Your task to perform on an android device: View the shopping cart on walmart. Add apple airpods pro to the cart on walmart, then select checkout. Image 0: 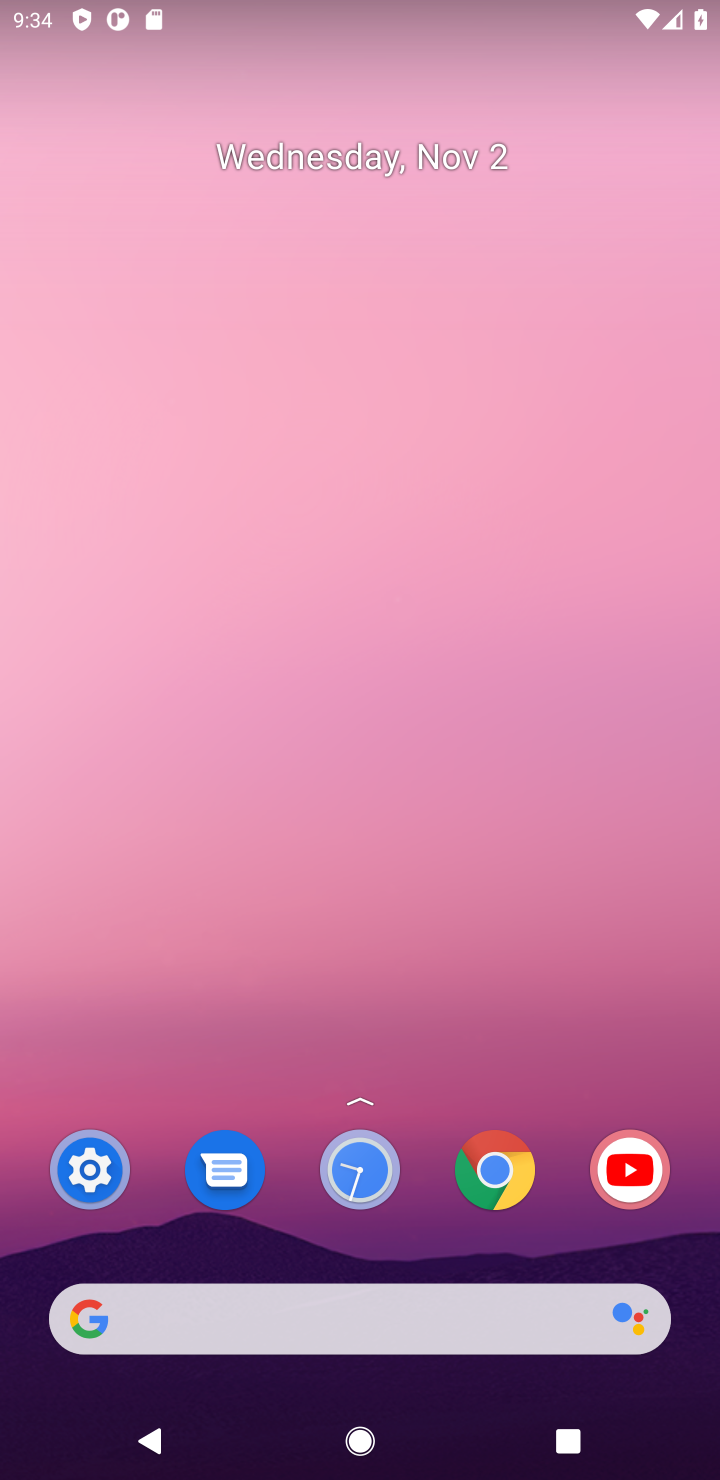
Step 0: drag from (461, 806) to (383, 8)
Your task to perform on an android device: View the shopping cart on walmart. Add apple airpods pro to the cart on walmart, then select checkout. Image 1: 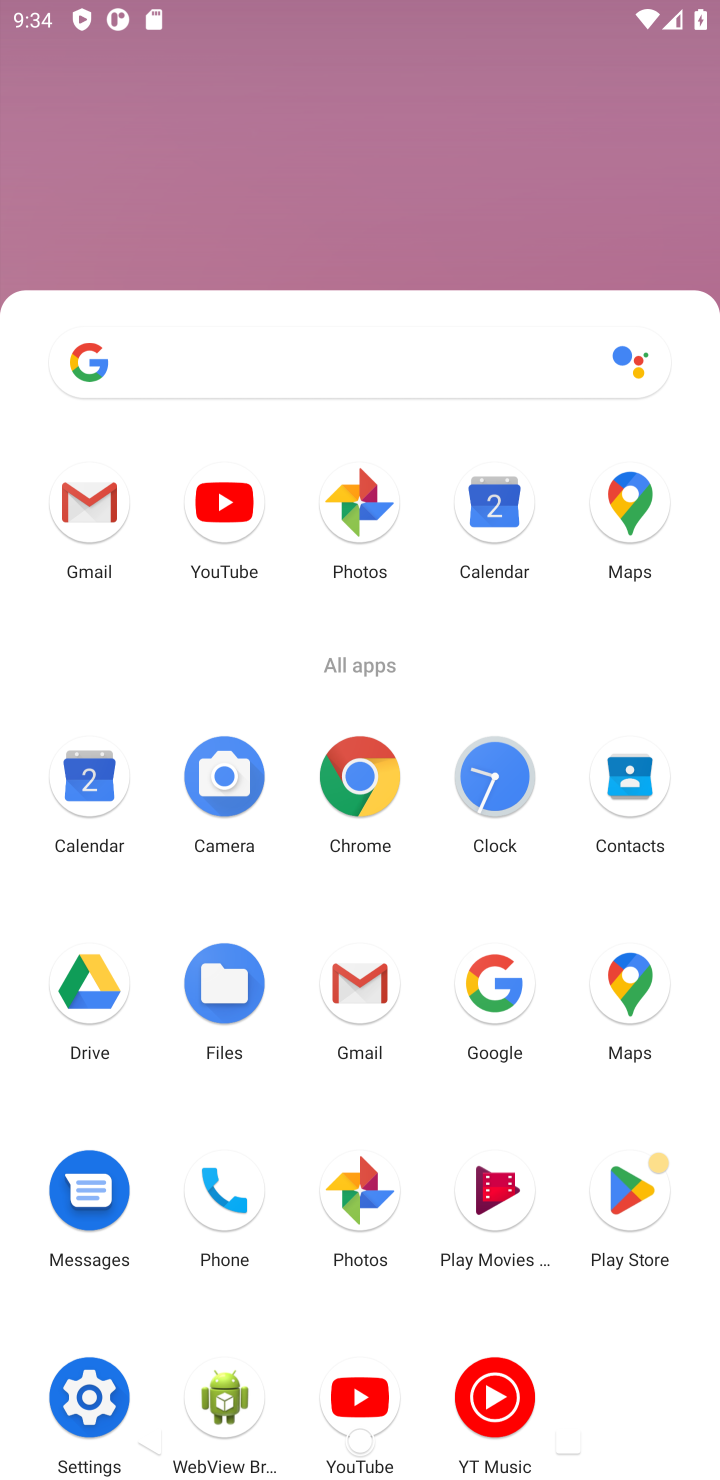
Step 1: drag from (468, 1036) to (435, 280)
Your task to perform on an android device: View the shopping cart on walmart. Add apple airpods pro to the cart on walmart, then select checkout. Image 2: 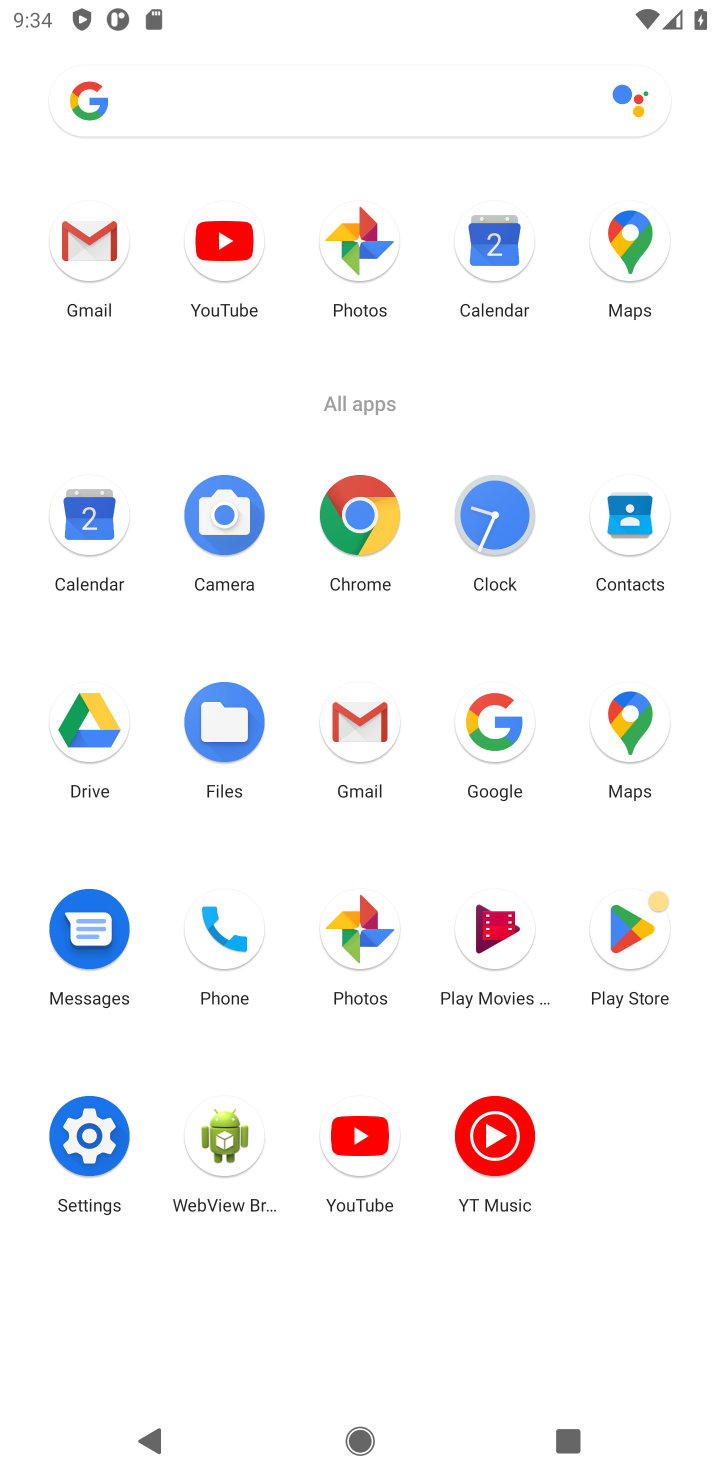
Step 2: click (515, 750)
Your task to perform on an android device: View the shopping cart on walmart. Add apple airpods pro to the cart on walmart, then select checkout. Image 3: 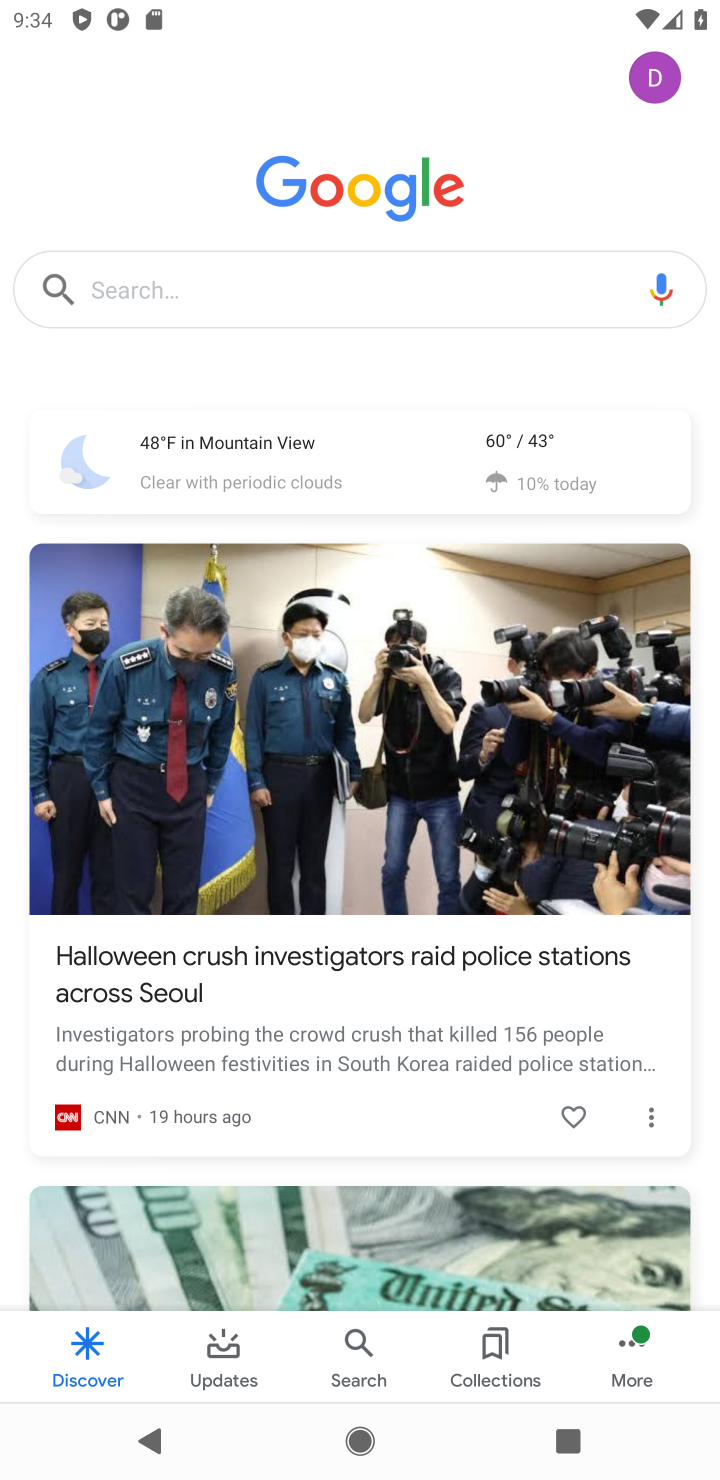
Step 3: click (416, 294)
Your task to perform on an android device: View the shopping cart on walmart. Add apple airpods pro to the cart on walmart, then select checkout. Image 4: 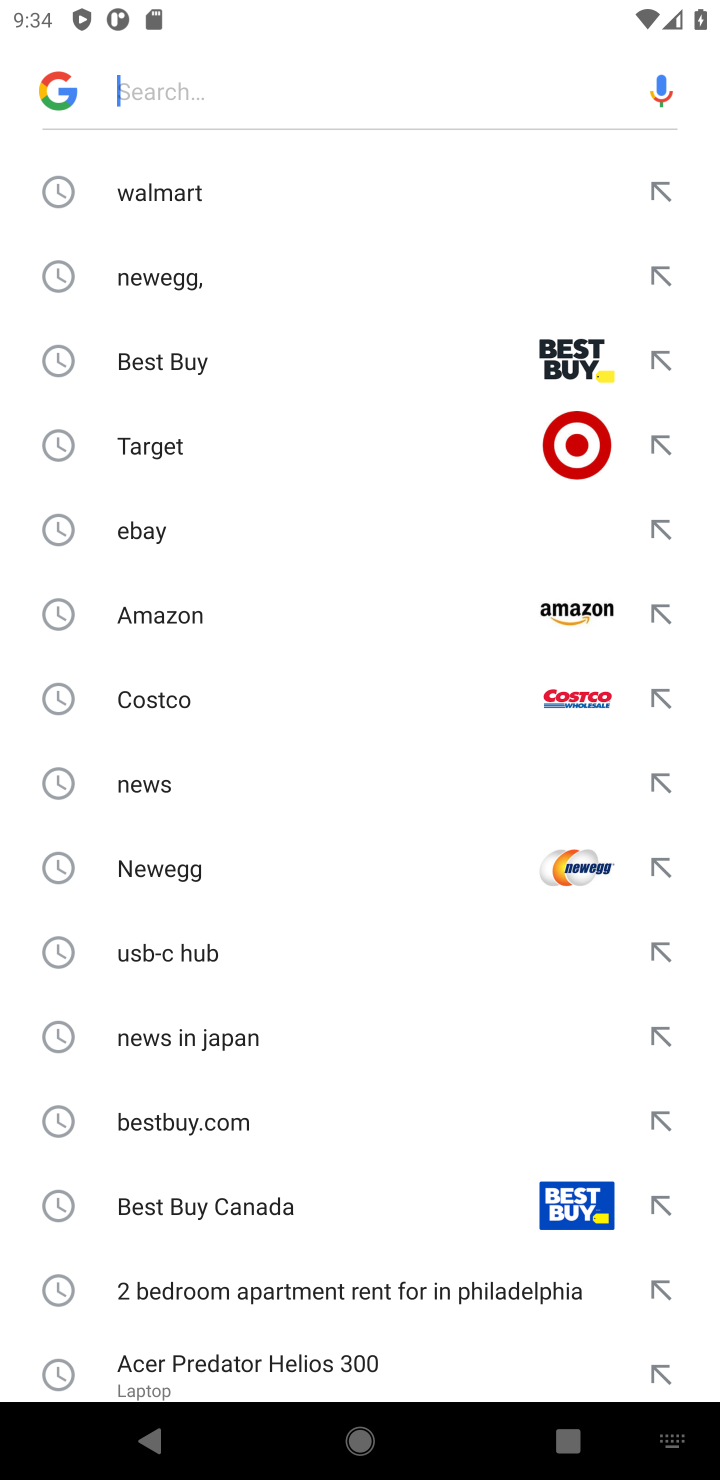
Step 4: type "walmart"
Your task to perform on an android device: View the shopping cart on walmart. Add apple airpods pro to the cart on walmart, then select checkout. Image 5: 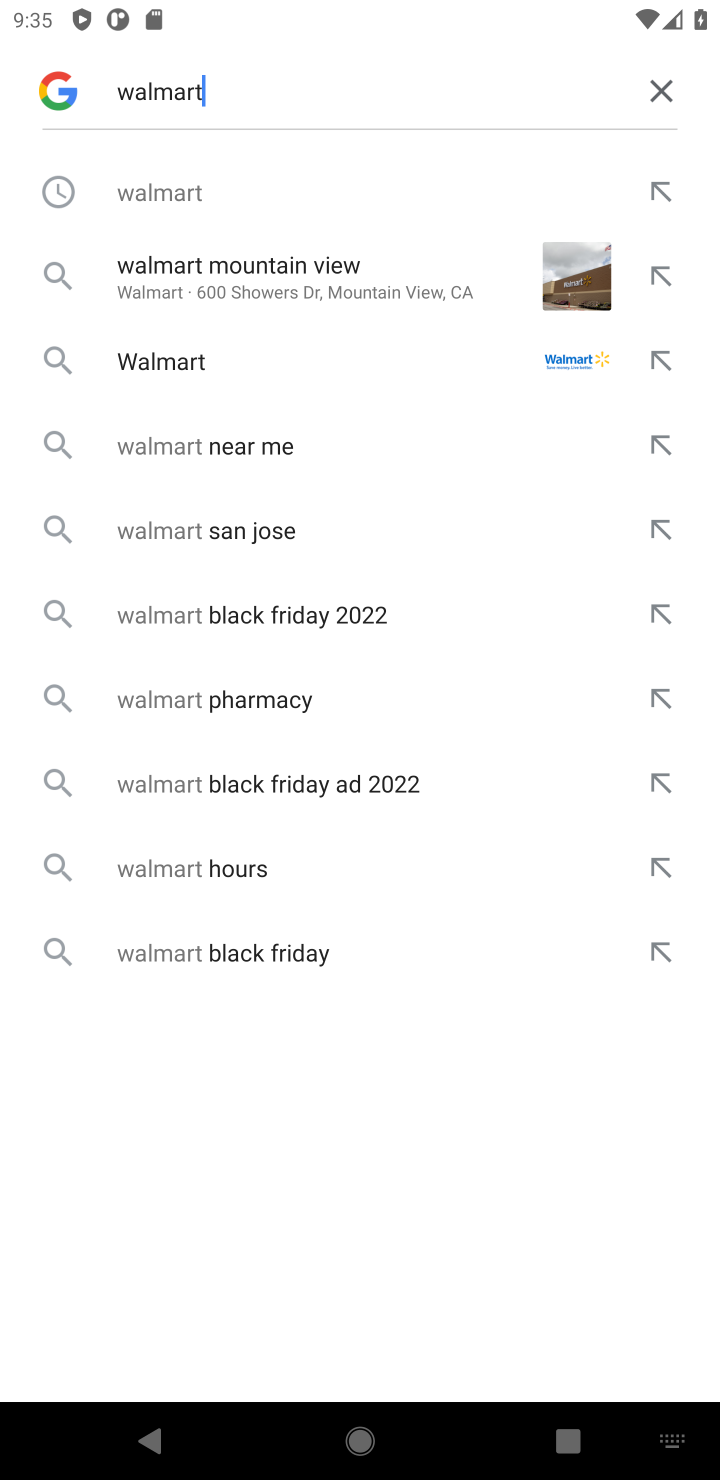
Step 5: click (351, 172)
Your task to perform on an android device: View the shopping cart on walmart. Add apple airpods pro to the cart on walmart, then select checkout. Image 6: 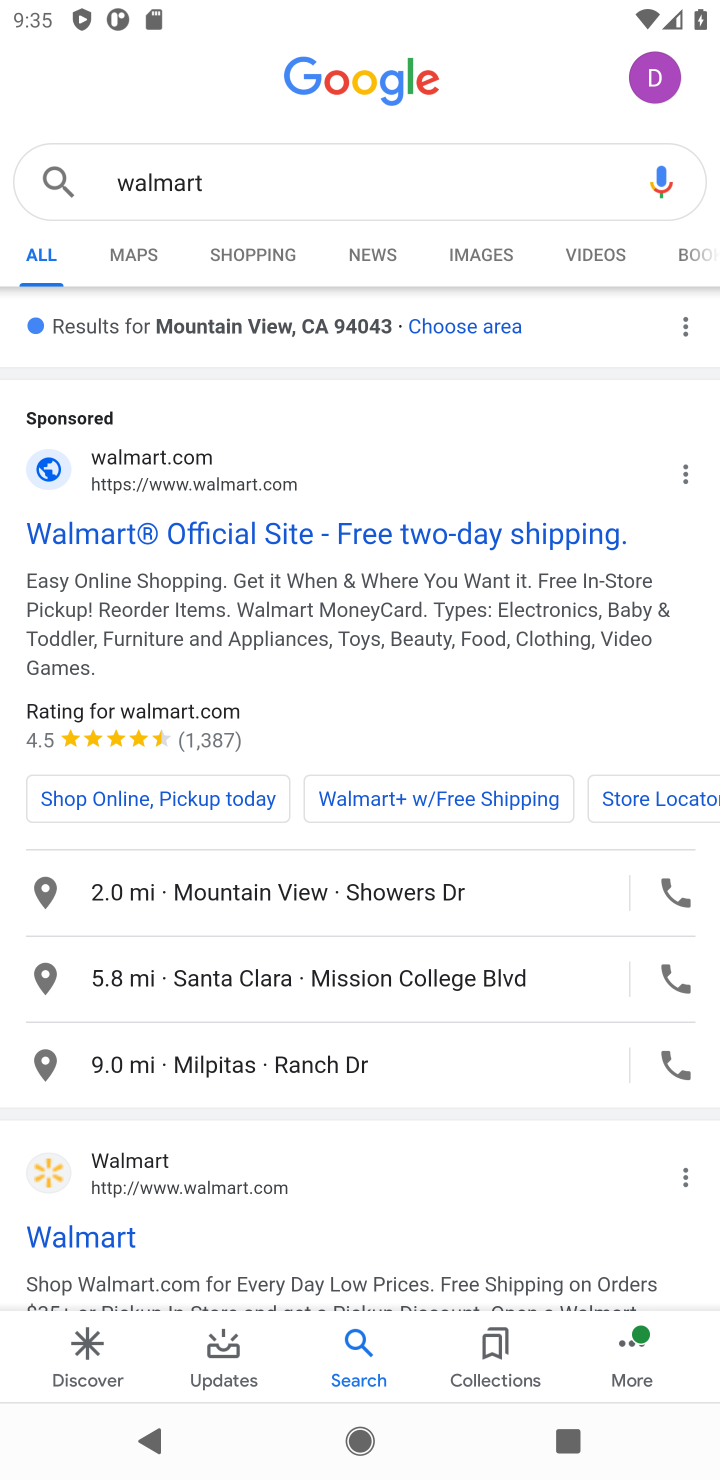
Step 6: click (144, 540)
Your task to perform on an android device: View the shopping cart on walmart. Add apple airpods pro to the cart on walmart, then select checkout. Image 7: 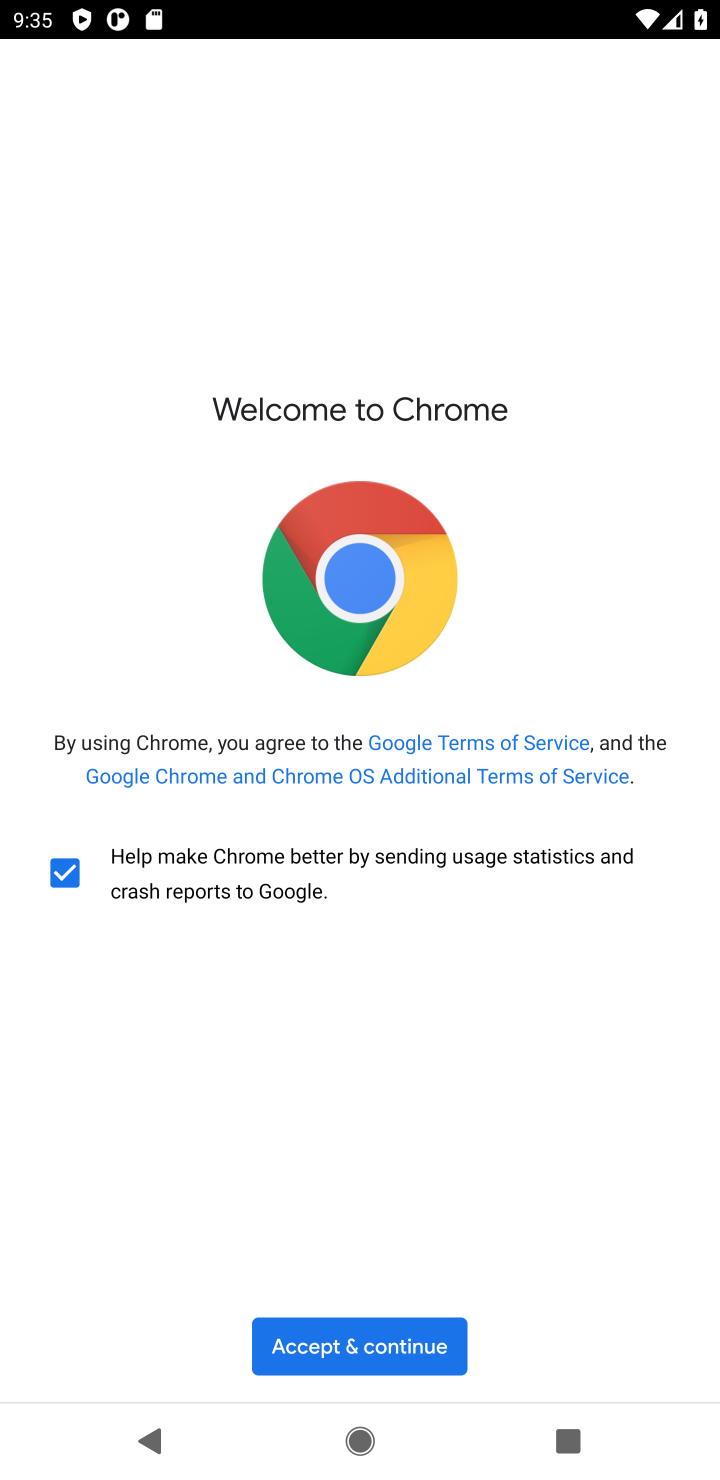
Step 7: click (420, 1350)
Your task to perform on an android device: View the shopping cart on walmart. Add apple airpods pro to the cart on walmart, then select checkout. Image 8: 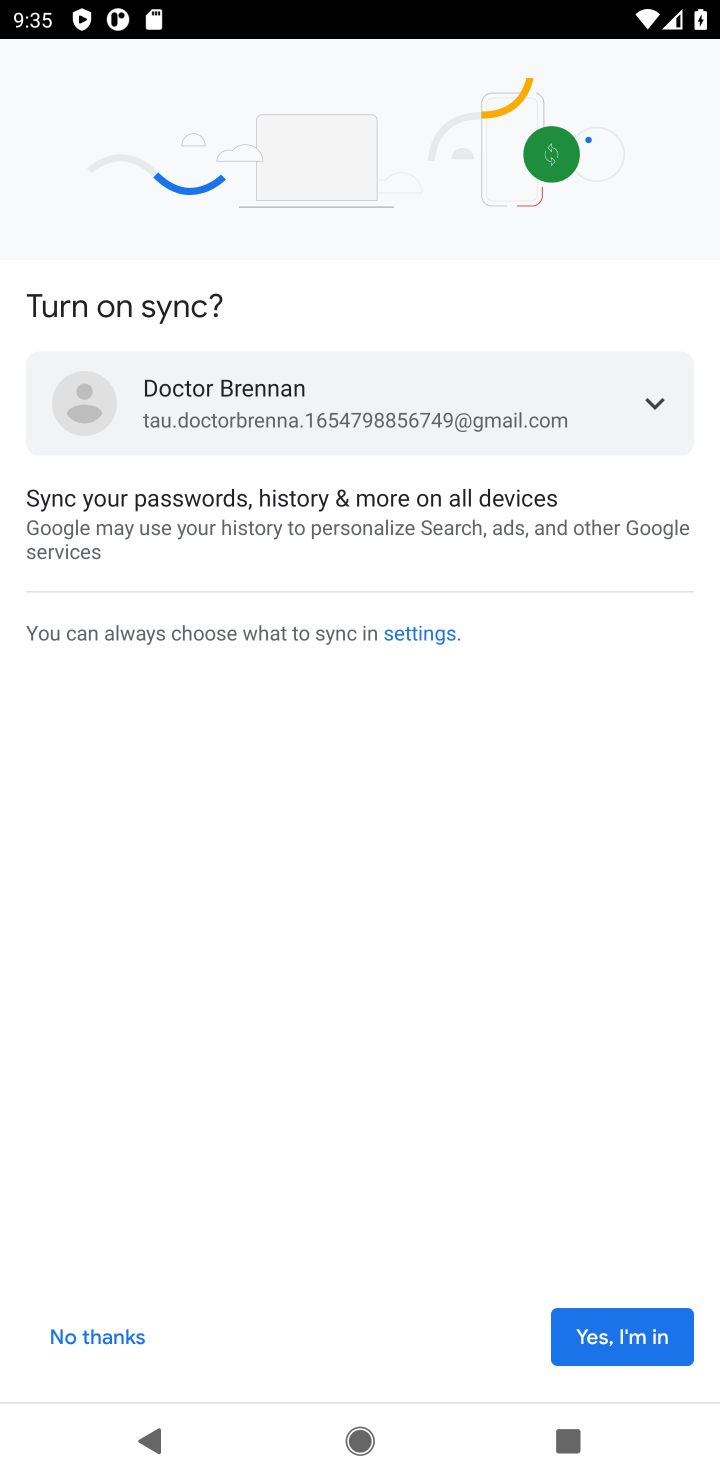
Step 8: click (669, 1337)
Your task to perform on an android device: View the shopping cart on walmart. Add apple airpods pro to the cart on walmart, then select checkout. Image 9: 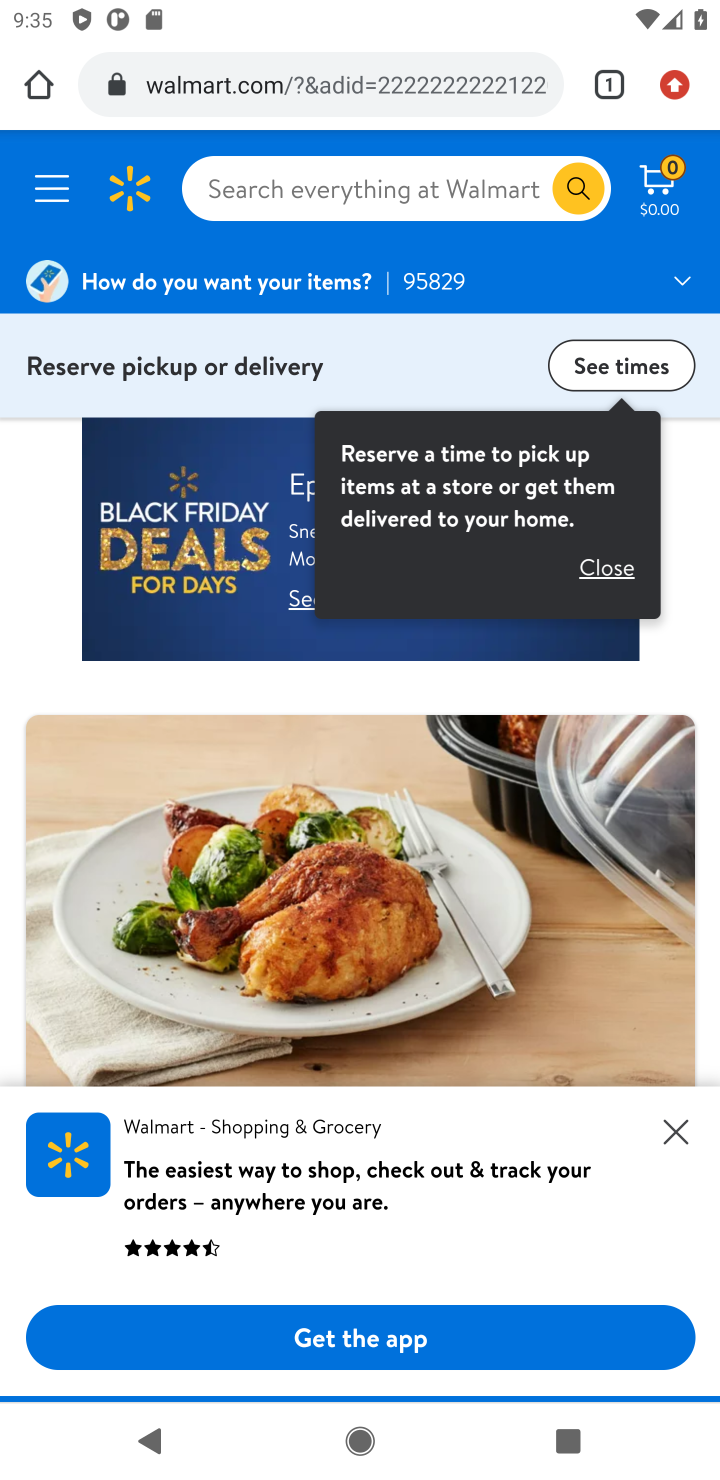
Step 9: click (336, 205)
Your task to perform on an android device: View the shopping cart on walmart. Add apple airpods pro to the cart on walmart, then select checkout. Image 10: 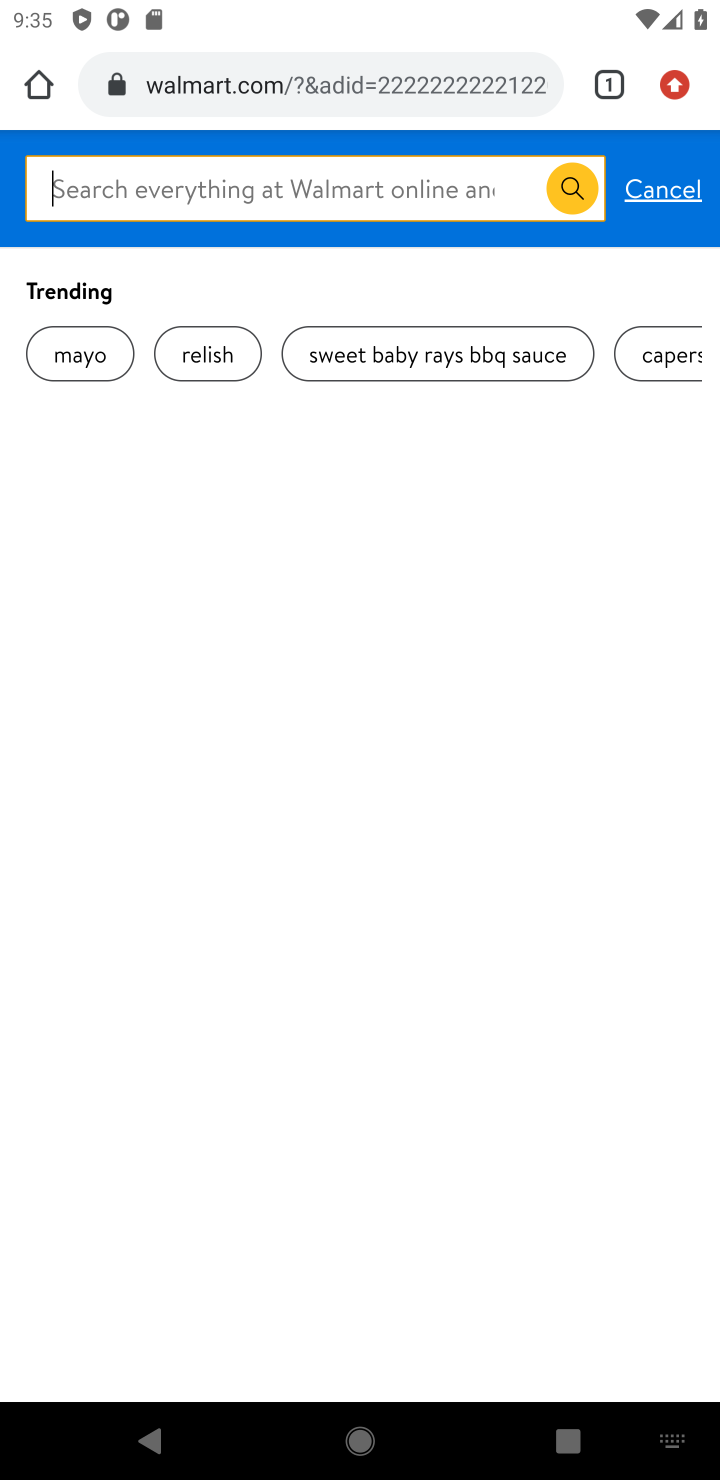
Step 10: type "airpods pro"
Your task to perform on an android device: View the shopping cart on walmart. Add apple airpods pro to the cart on walmart, then select checkout. Image 11: 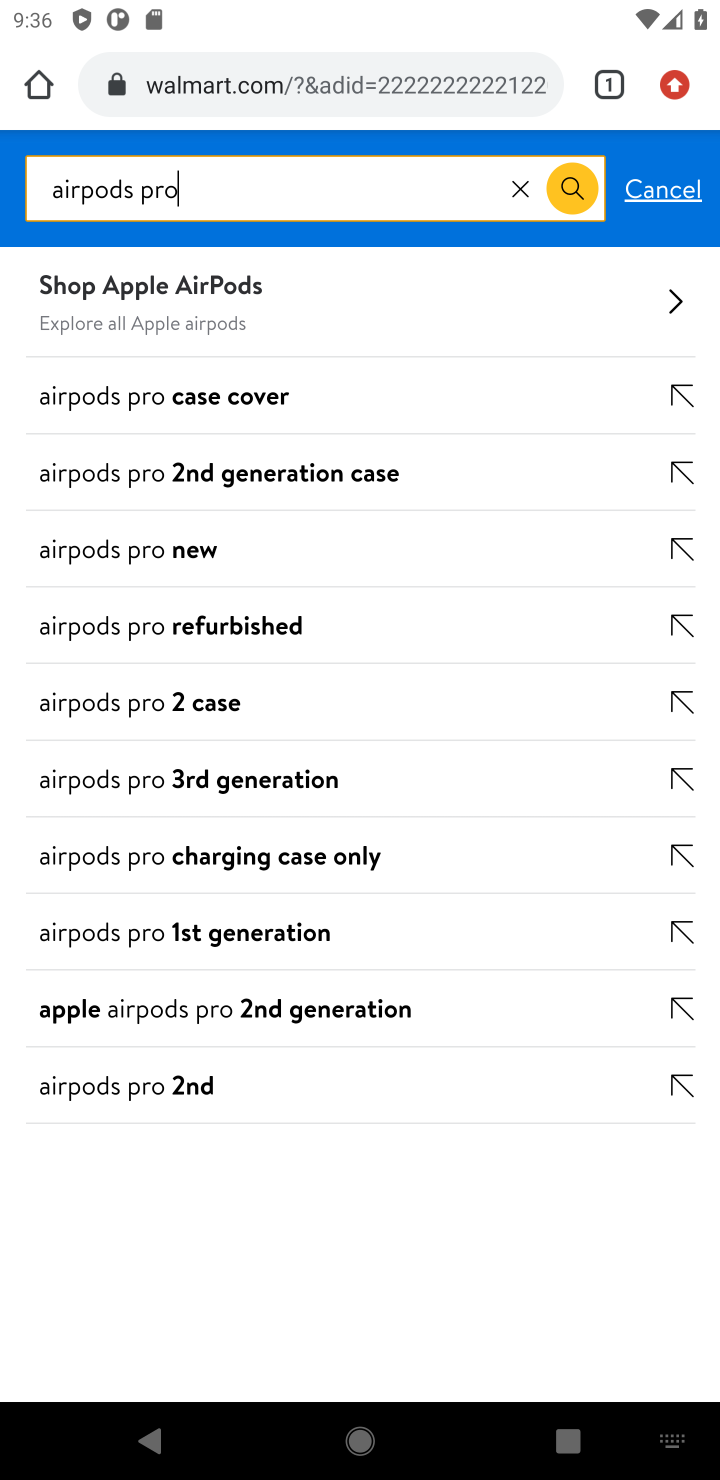
Step 11: click (219, 555)
Your task to perform on an android device: View the shopping cart on walmart. Add apple airpods pro to the cart on walmart, then select checkout. Image 12: 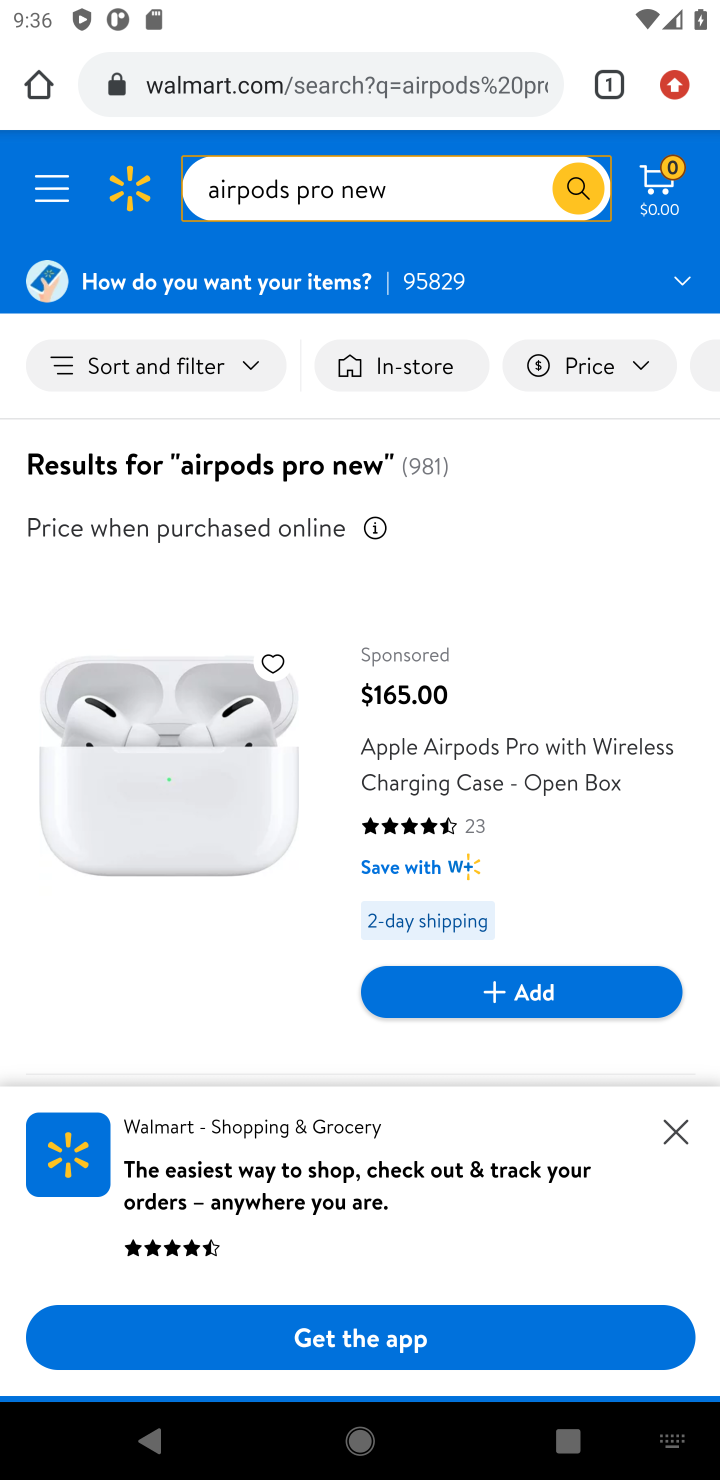
Step 12: click (467, 996)
Your task to perform on an android device: View the shopping cart on walmart. Add apple airpods pro to the cart on walmart, then select checkout. Image 13: 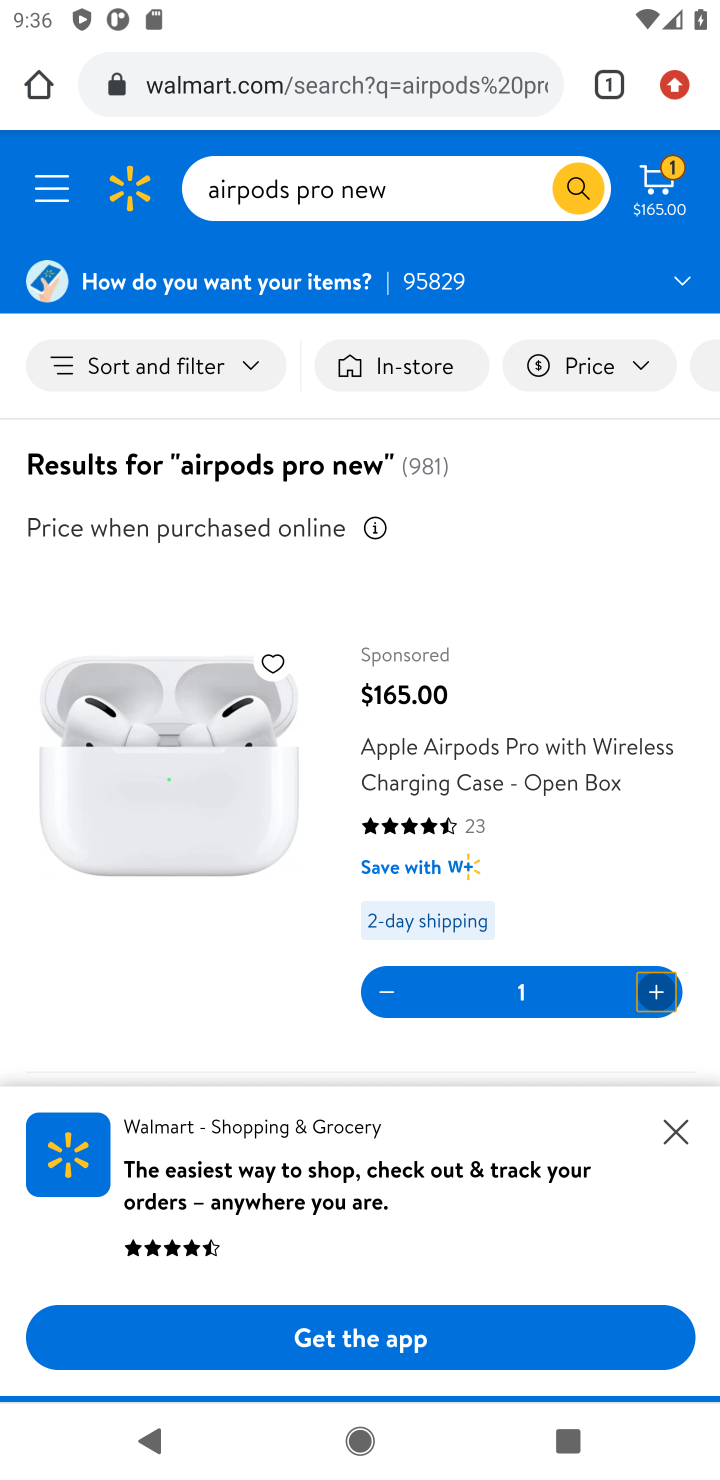
Step 13: click (665, 182)
Your task to perform on an android device: View the shopping cart on walmart. Add apple airpods pro to the cart on walmart, then select checkout. Image 14: 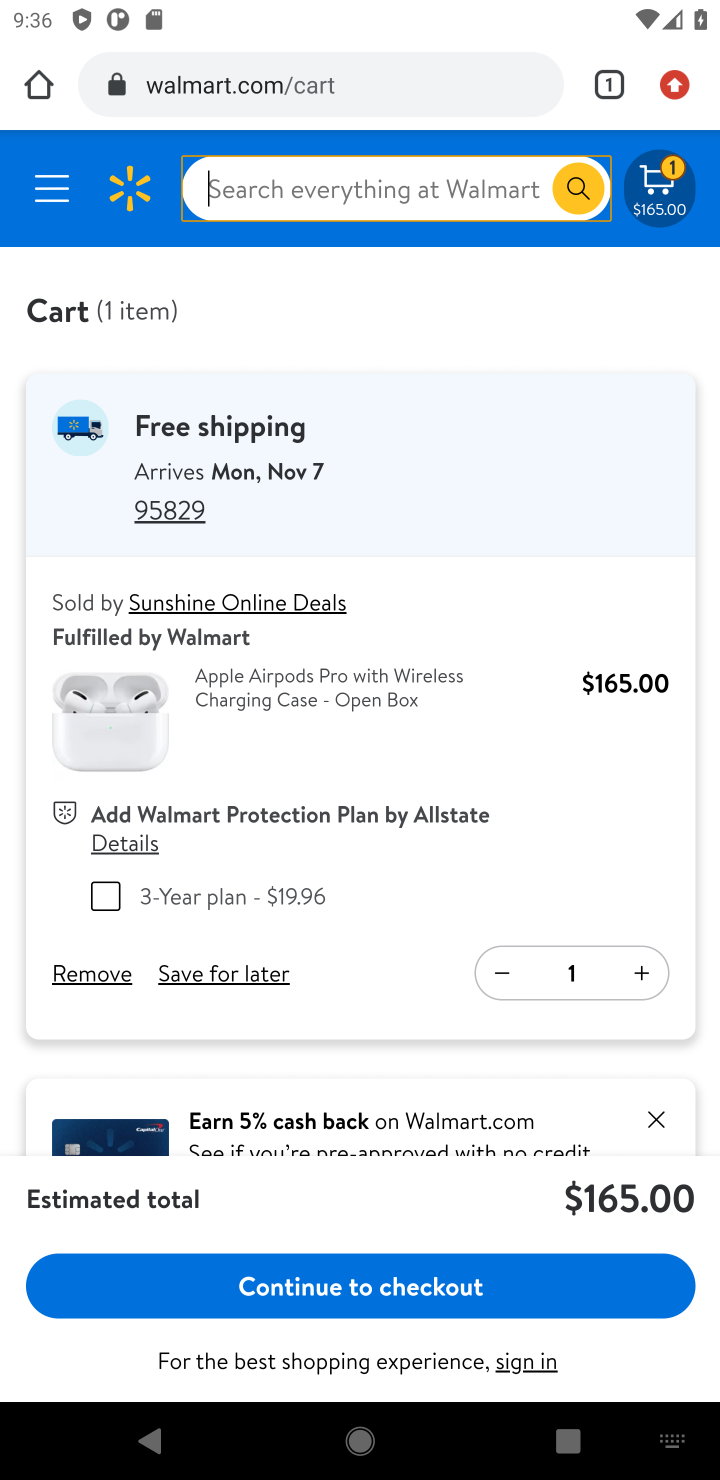
Step 14: click (406, 1296)
Your task to perform on an android device: View the shopping cart on walmart. Add apple airpods pro to the cart on walmart, then select checkout. Image 15: 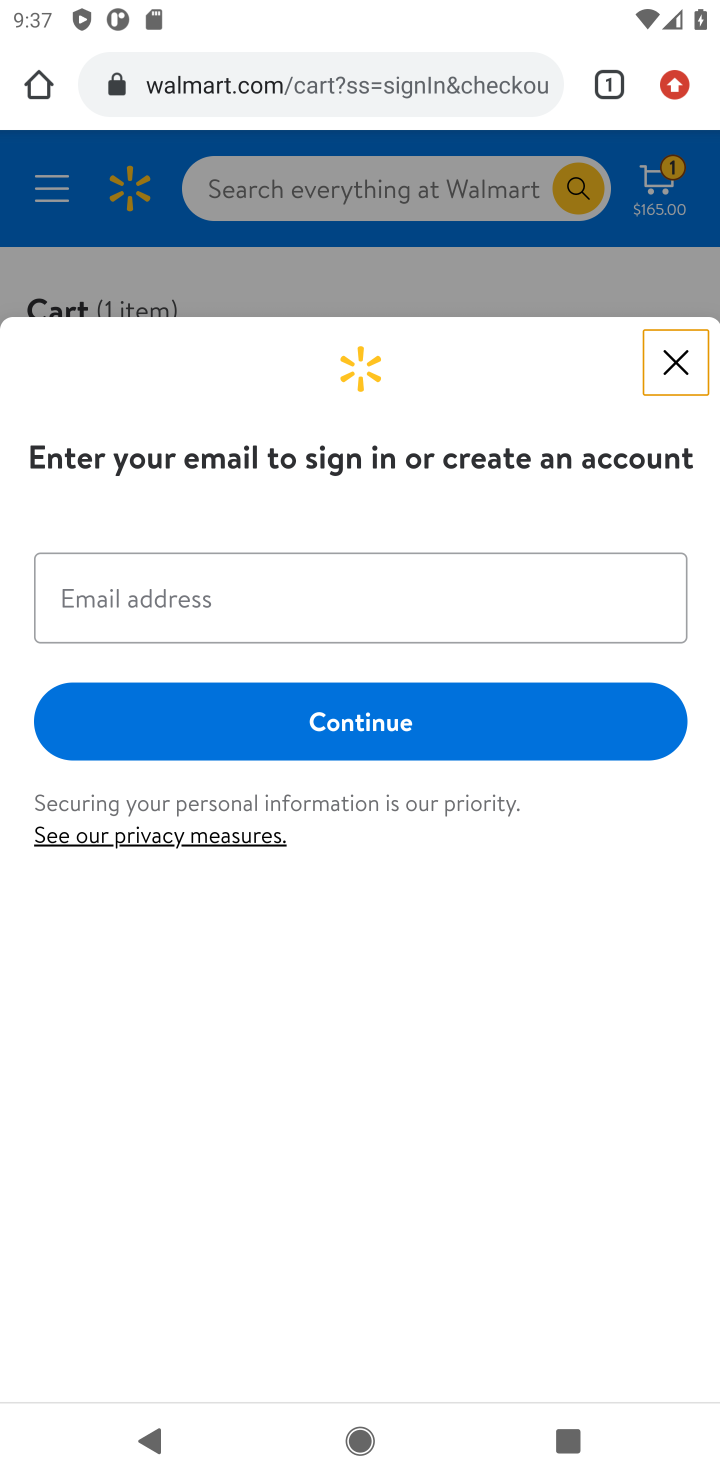
Step 15: task complete